Your task to perform on an android device: change the upload size in google photos Image 0: 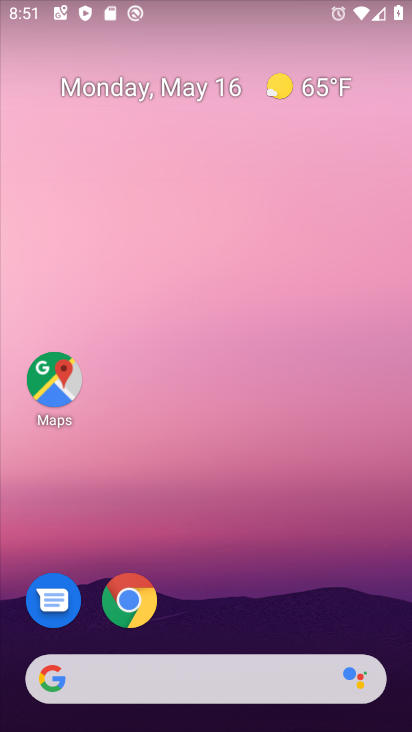
Step 0: click (257, 106)
Your task to perform on an android device: change the upload size in google photos Image 1: 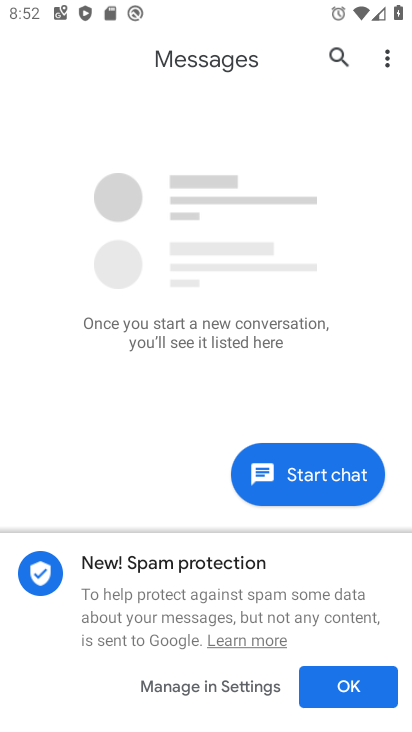
Step 1: press home button
Your task to perform on an android device: change the upload size in google photos Image 2: 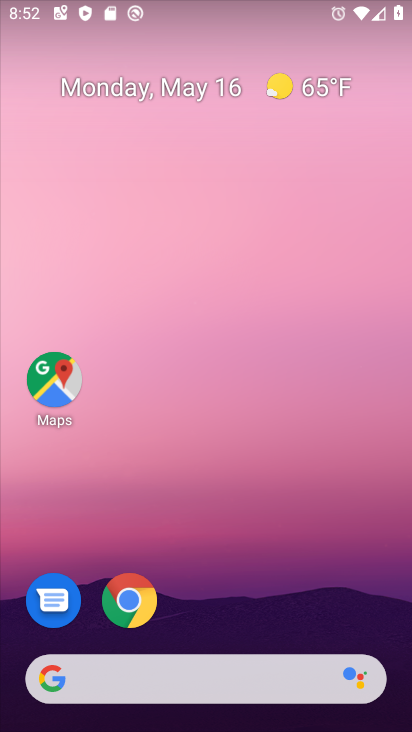
Step 2: drag from (165, 659) to (13, 54)
Your task to perform on an android device: change the upload size in google photos Image 3: 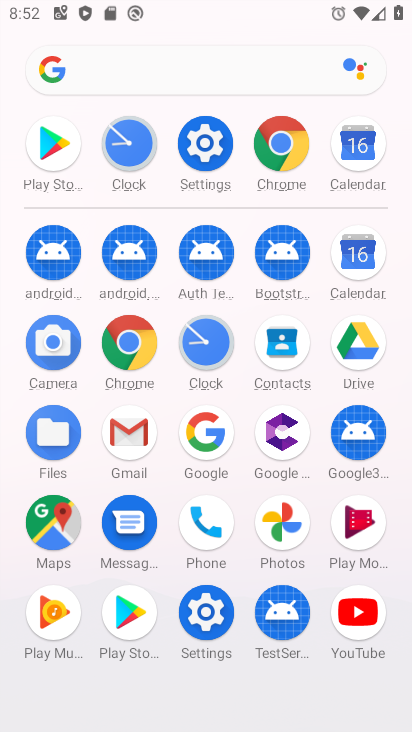
Step 3: click (283, 522)
Your task to perform on an android device: change the upload size in google photos Image 4: 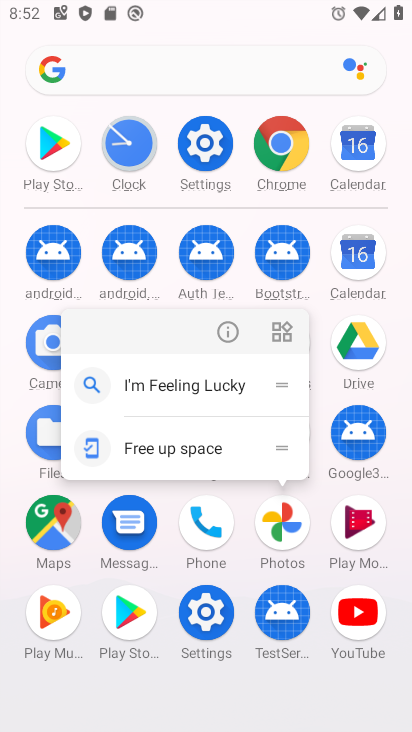
Step 4: click (226, 333)
Your task to perform on an android device: change the upload size in google photos Image 5: 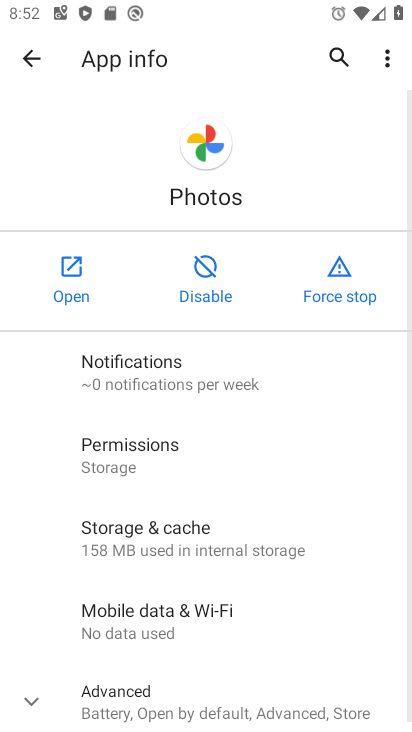
Step 5: click (89, 279)
Your task to perform on an android device: change the upload size in google photos Image 6: 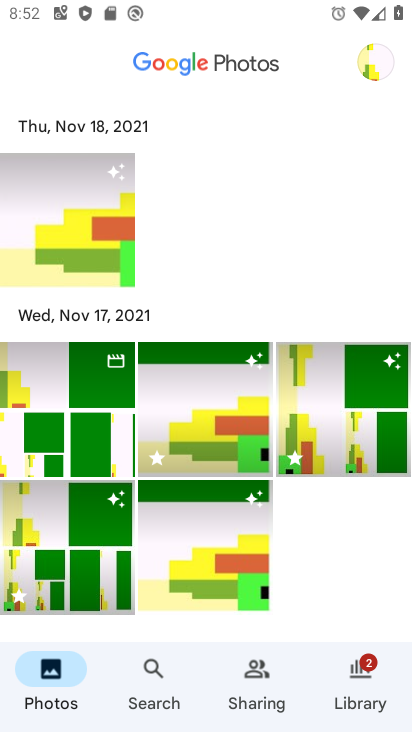
Step 6: click (375, 60)
Your task to perform on an android device: change the upload size in google photos Image 7: 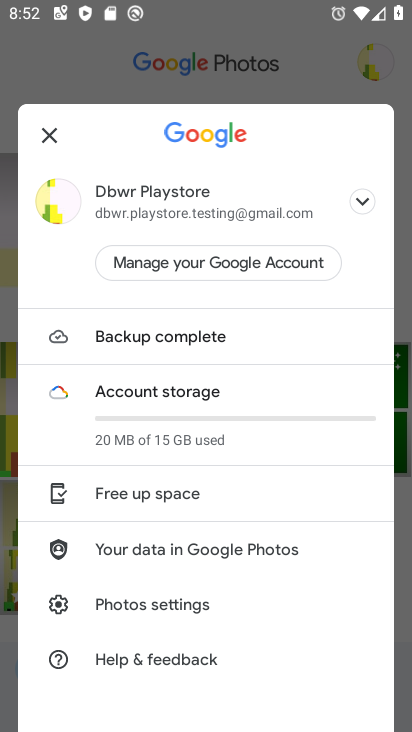
Step 7: click (173, 600)
Your task to perform on an android device: change the upload size in google photos Image 8: 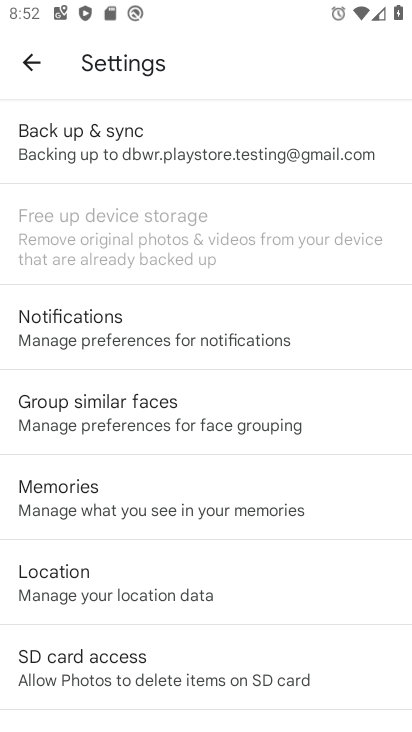
Step 8: click (133, 137)
Your task to perform on an android device: change the upload size in google photos Image 9: 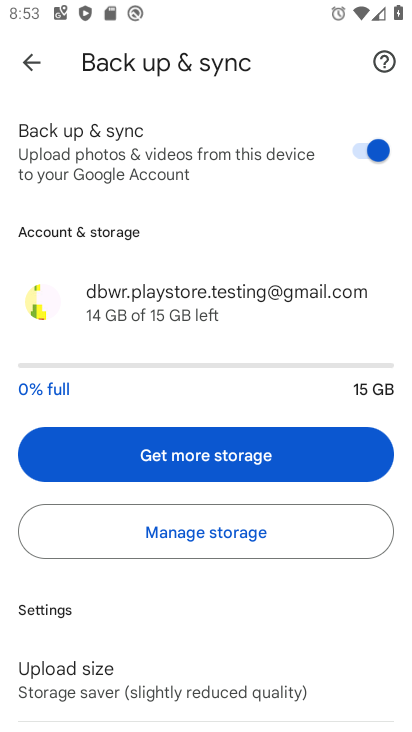
Step 9: drag from (186, 325) to (257, 3)
Your task to perform on an android device: change the upload size in google photos Image 10: 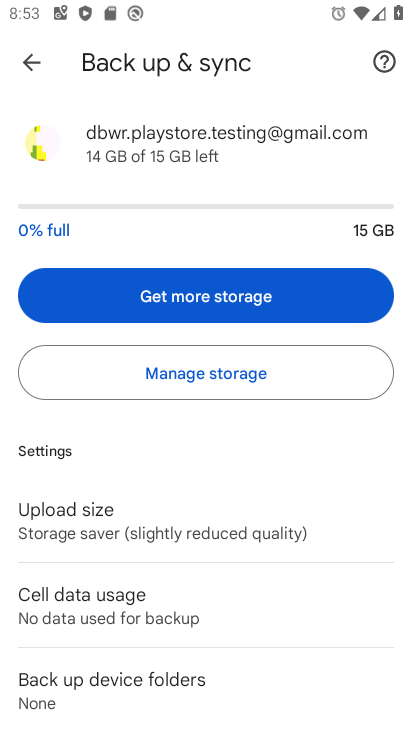
Step 10: click (151, 533)
Your task to perform on an android device: change the upload size in google photos Image 11: 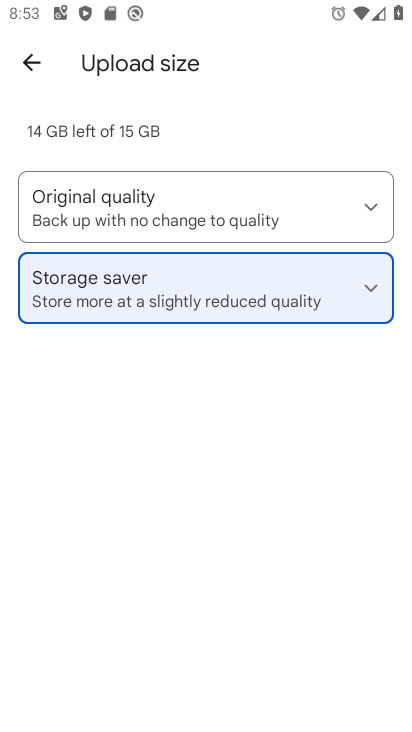
Step 11: drag from (237, 481) to (333, 282)
Your task to perform on an android device: change the upload size in google photos Image 12: 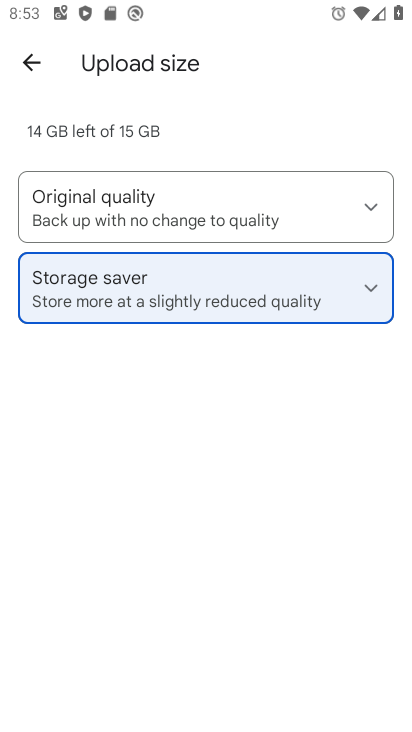
Step 12: click (178, 562)
Your task to perform on an android device: change the upload size in google photos Image 13: 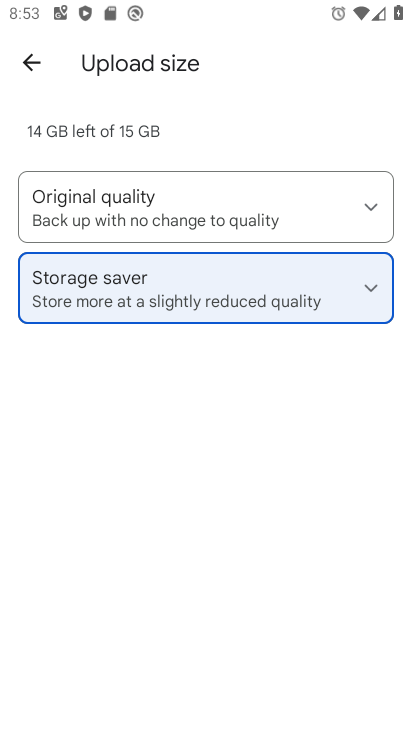
Step 13: click (284, 213)
Your task to perform on an android device: change the upload size in google photos Image 14: 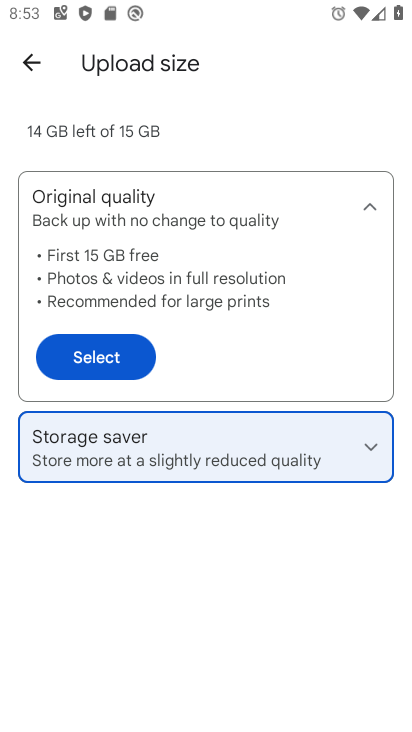
Step 14: click (99, 358)
Your task to perform on an android device: change the upload size in google photos Image 15: 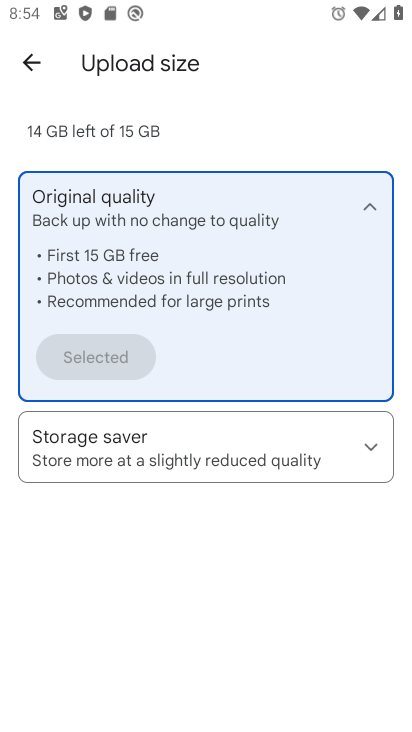
Step 15: task complete